Your task to perform on an android device: Open Maps and search for coffee Image 0: 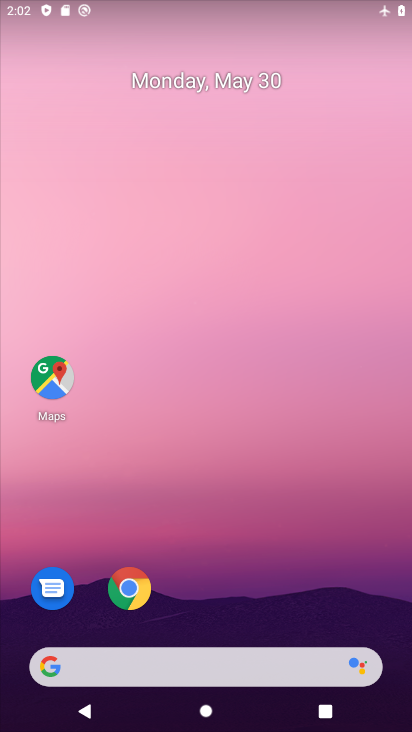
Step 0: click (45, 371)
Your task to perform on an android device: Open Maps and search for coffee Image 1: 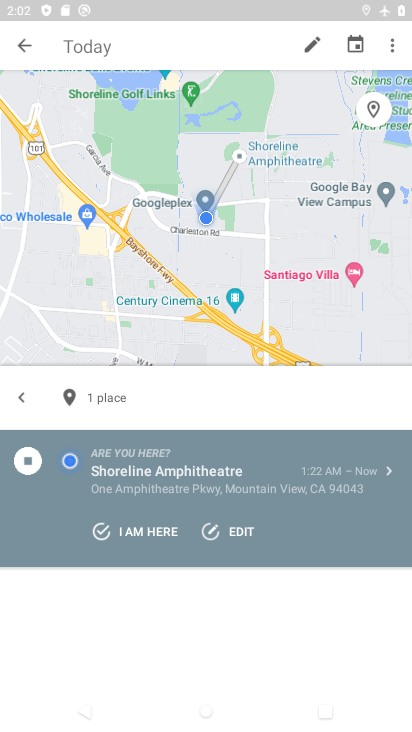
Step 1: click (14, 45)
Your task to perform on an android device: Open Maps and search for coffee Image 2: 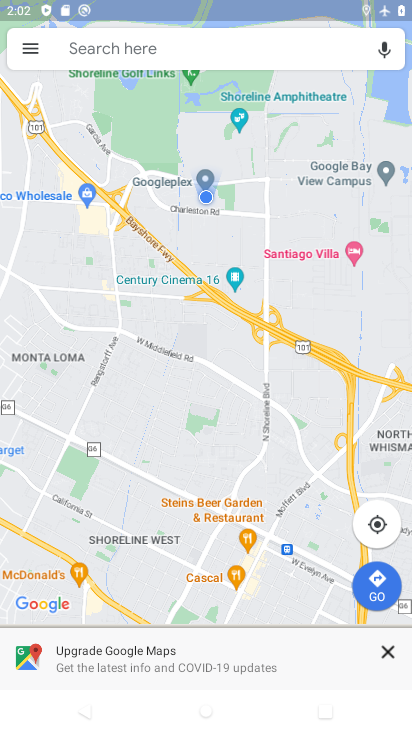
Step 2: click (167, 48)
Your task to perform on an android device: Open Maps and search for coffee Image 3: 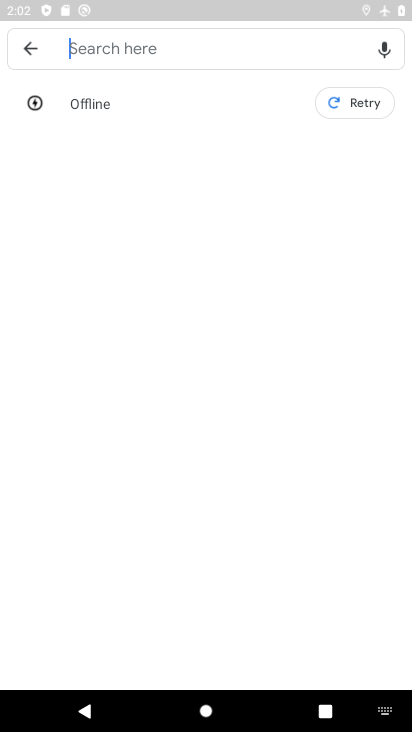
Step 3: click (214, 44)
Your task to perform on an android device: Open Maps and search for coffee Image 4: 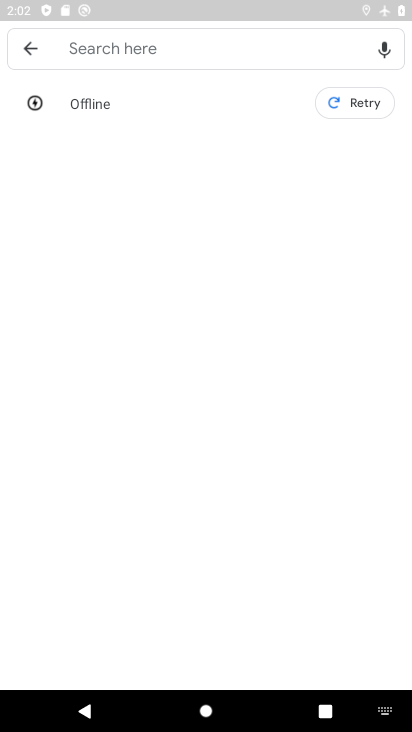
Step 4: type "coffee"
Your task to perform on an android device: Open Maps and search for coffee Image 5: 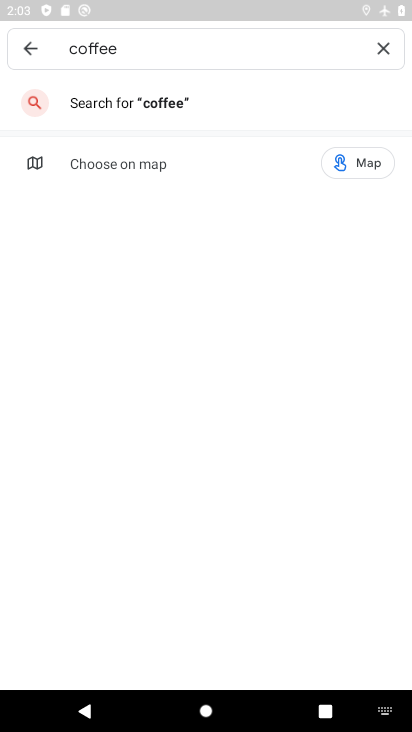
Step 5: task complete